Your task to perform on an android device: Search for seafood restaurants on Google Maps Image 0: 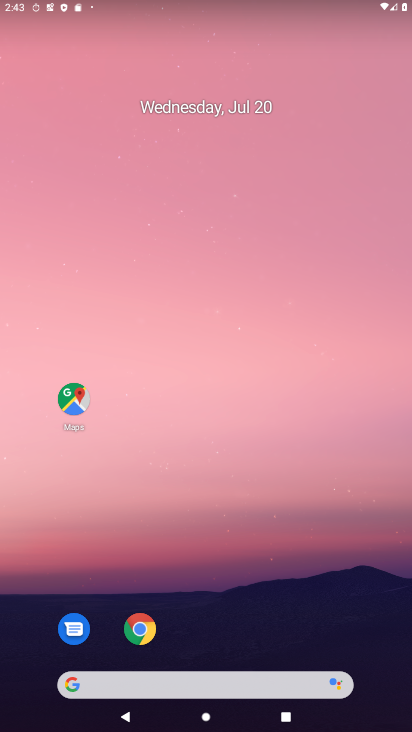
Step 0: click (73, 395)
Your task to perform on an android device: Search for seafood restaurants on Google Maps Image 1: 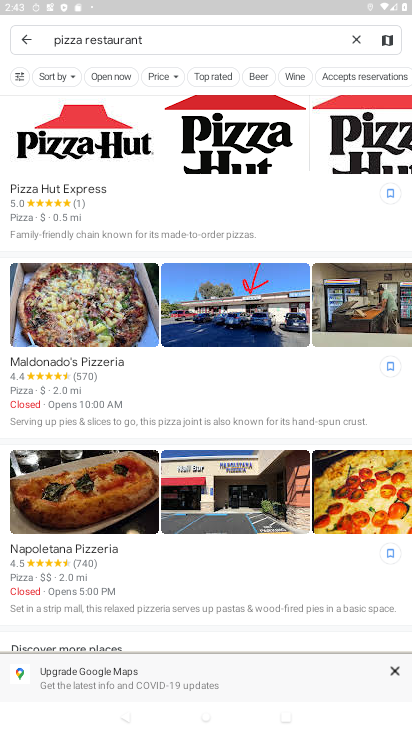
Step 1: click (342, 43)
Your task to perform on an android device: Search for seafood restaurants on Google Maps Image 2: 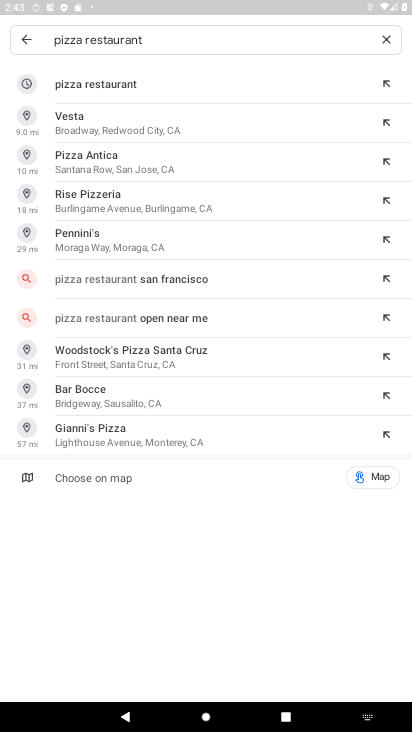
Step 2: click (388, 37)
Your task to perform on an android device: Search for seafood restaurants on Google Maps Image 3: 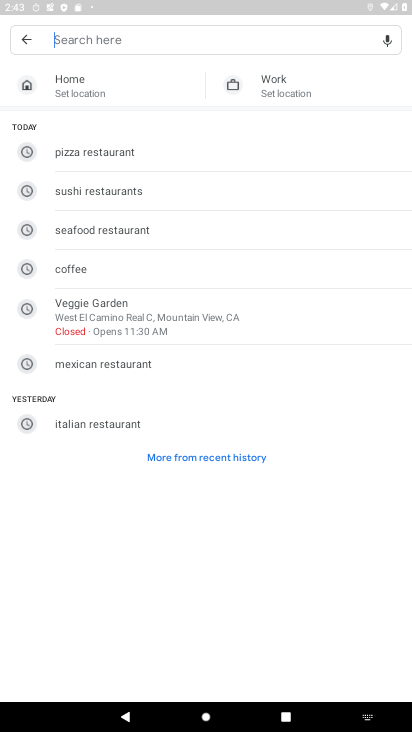
Step 3: type "seafood"
Your task to perform on an android device: Search for seafood restaurants on Google Maps Image 4: 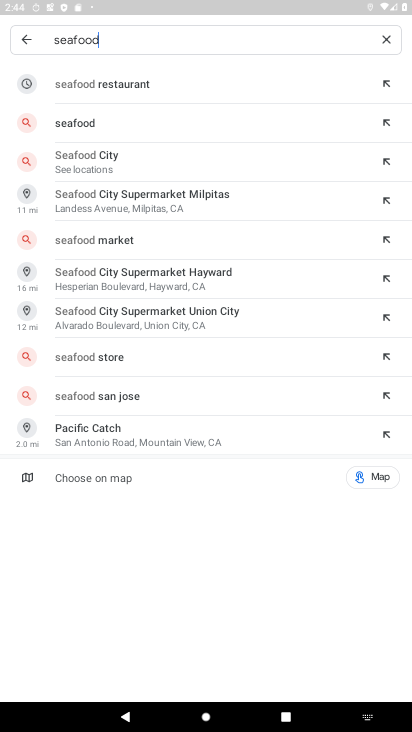
Step 4: click (111, 81)
Your task to perform on an android device: Search for seafood restaurants on Google Maps Image 5: 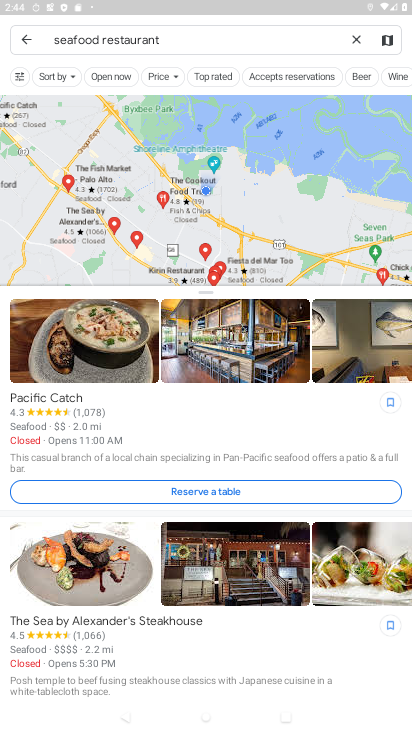
Step 5: task complete